Your task to perform on an android device: open app "TextNow: Call + Text Unlimited" (install if not already installed) Image 0: 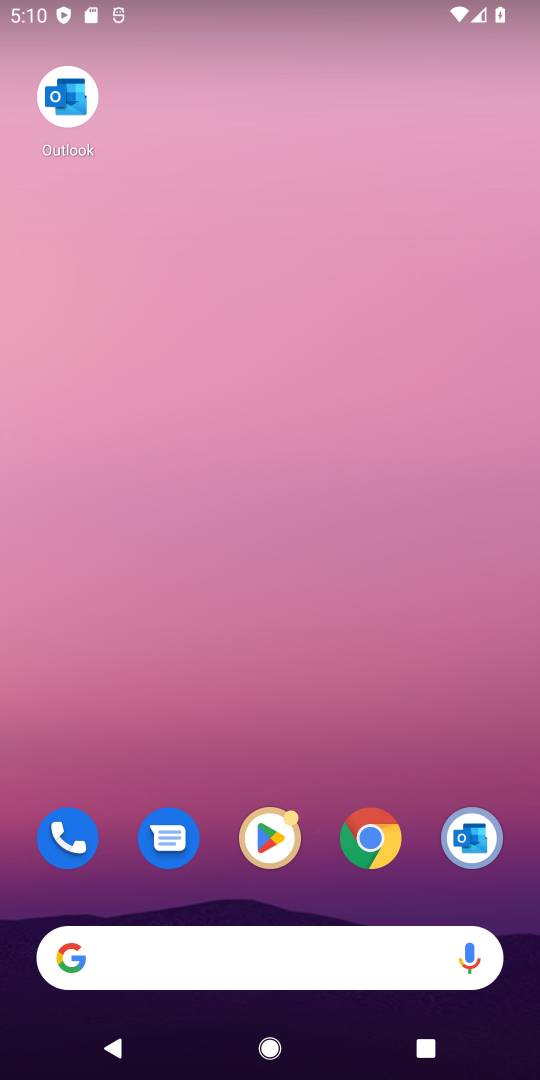
Step 0: click (265, 846)
Your task to perform on an android device: open app "TextNow: Call + Text Unlimited" (install if not already installed) Image 1: 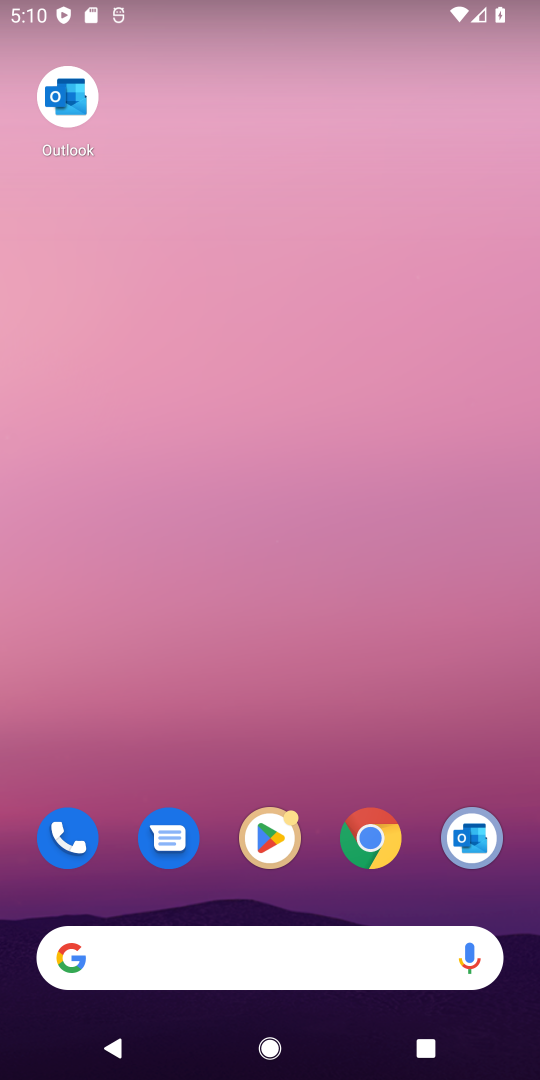
Step 1: click (264, 835)
Your task to perform on an android device: open app "TextNow: Call + Text Unlimited" (install if not already installed) Image 2: 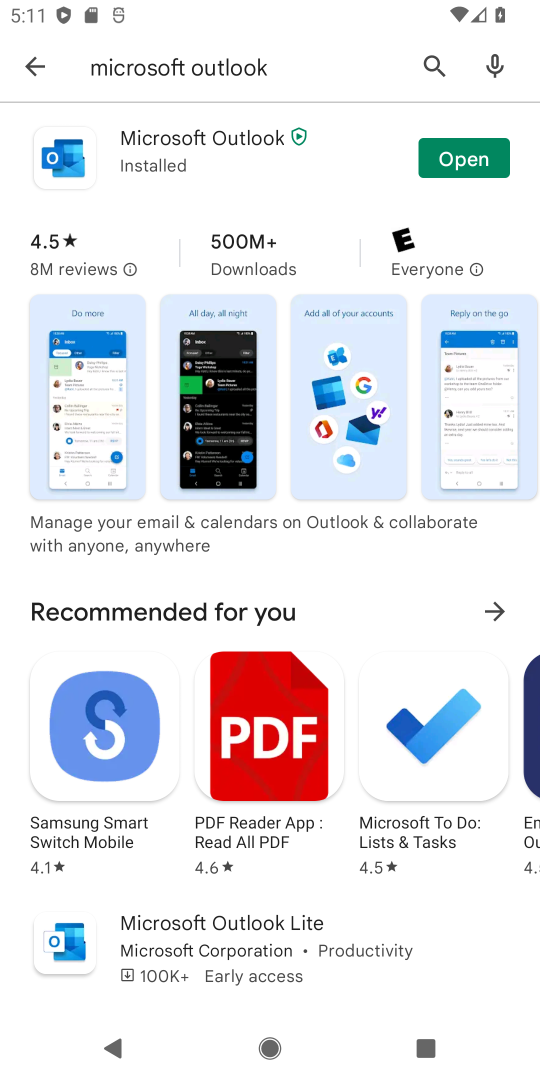
Step 2: click (431, 61)
Your task to perform on an android device: open app "TextNow: Call + Text Unlimited" (install if not already installed) Image 3: 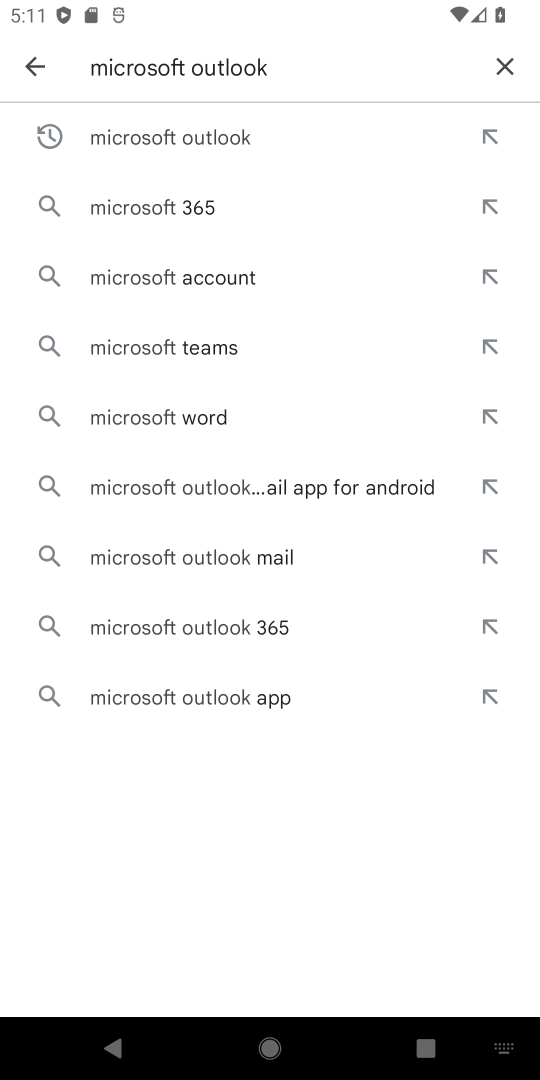
Step 3: click (500, 64)
Your task to perform on an android device: open app "TextNow: Call + Text Unlimited" (install if not already installed) Image 4: 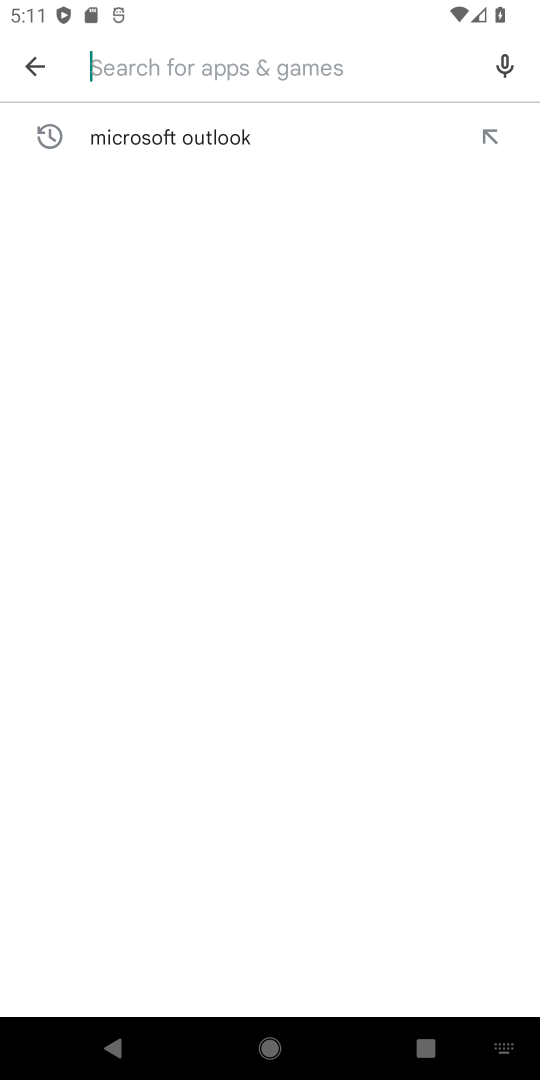
Step 4: type "TextNow: Call + Text Unlimited"
Your task to perform on an android device: open app "TextNow: Call + Text Unlimited" (install if not already installed) Image 5: 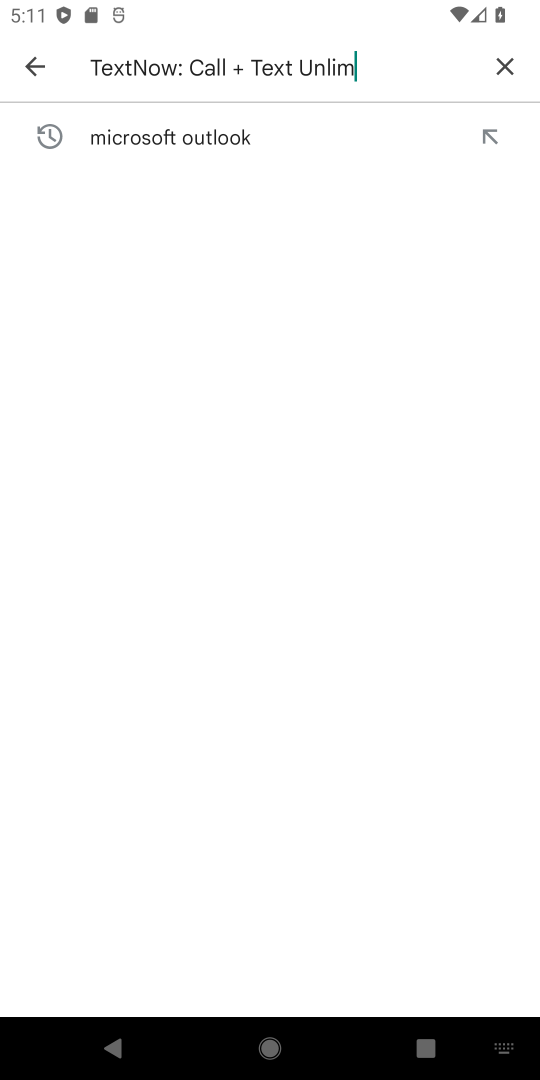
Step 5: type ""
Your task to perform on an android device: open app "TextNow: Call + Text Unlimited" (install if not already installed) Image 6: 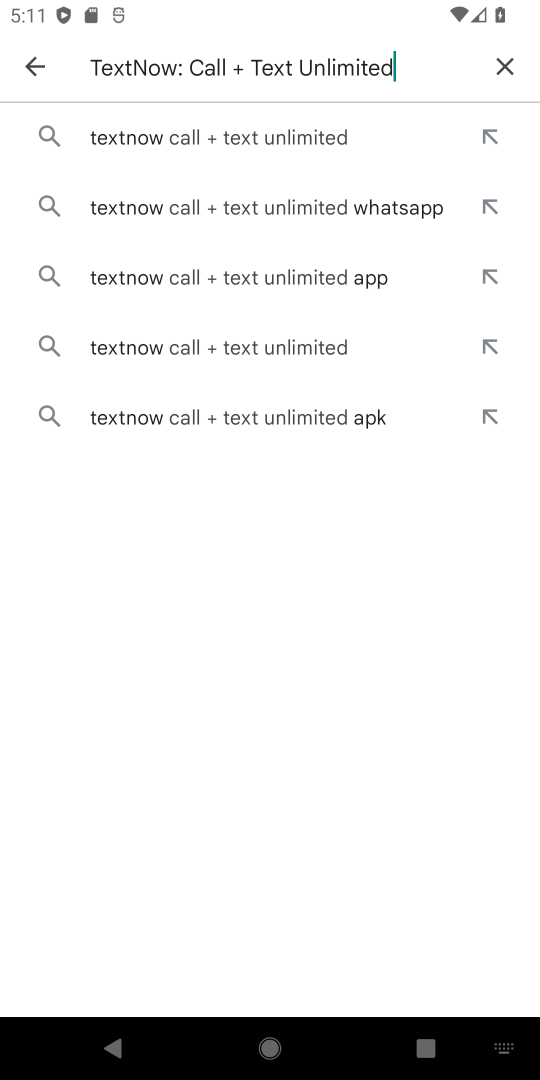
Step 6: click (264, 135)
Your task to perform on an android device: open app "TextNow: Call + Text Unlimited" (install if not already installed) Image 7: 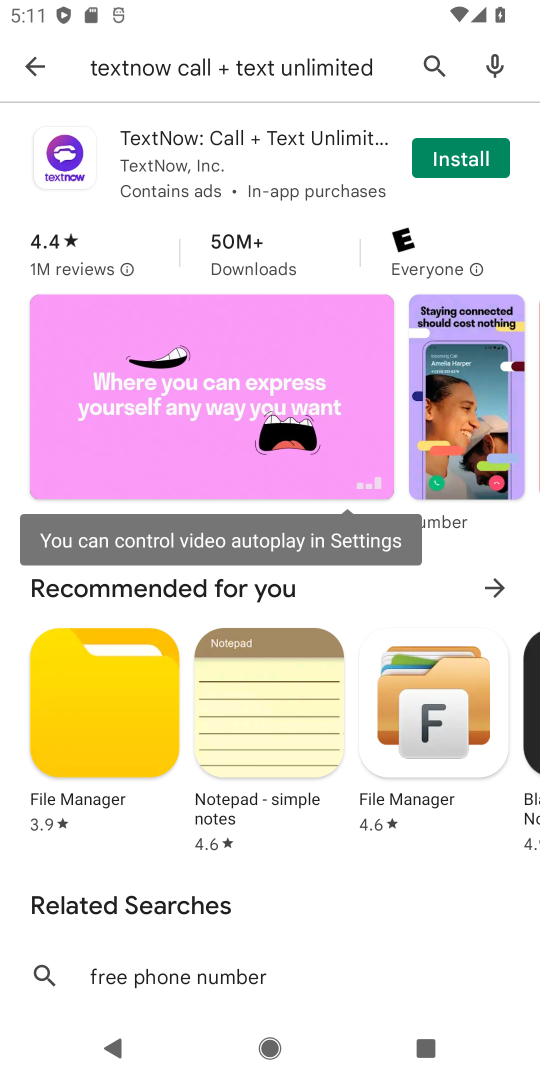
Step 7: click (453, 154)
Your task to perform on an android device: open app "TextNow: Call + Text Unlimited" (install if not already installed) Image 8: 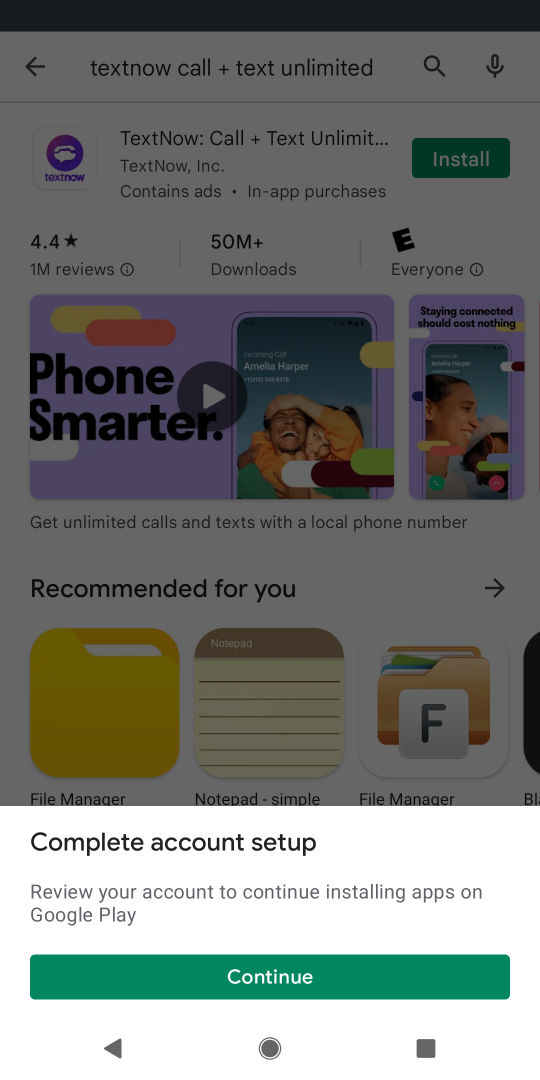
Step 8: click (296, 970)
Your task to perform on an android device: open app "TextNow: Call + Text Unlimited" (install if not already installed) Image 9: 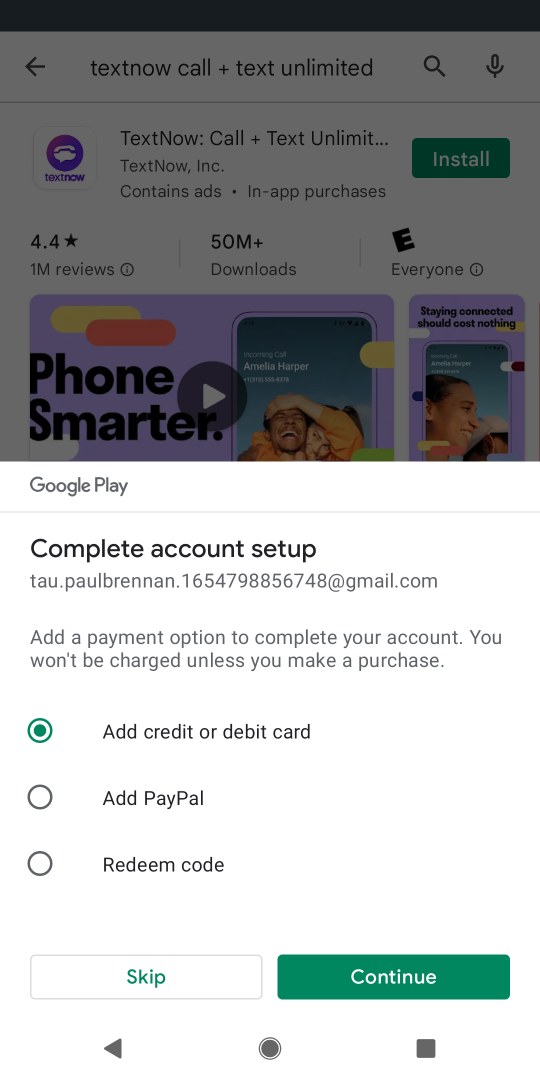
Step 9: click (136, 973)
Your task to perform on an android device: open app "TextNow: Call + Text Unlimited" (install if not already installed) Image 10: 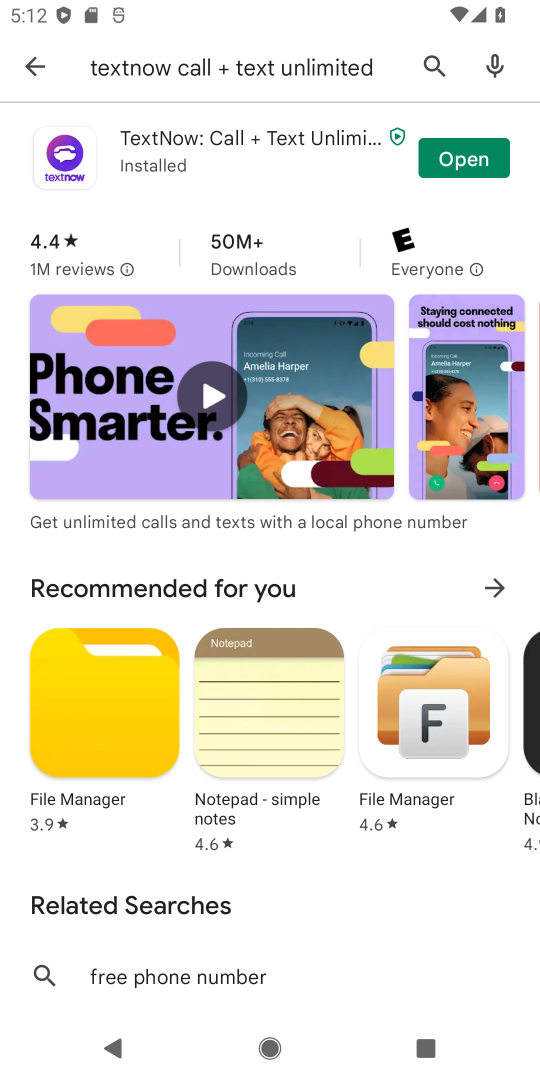
Step 10: click (463, 165)
Your task to perform on an android device: open app "TextNow: Call + Text Unlimited" (install if not already installed) Image 11: 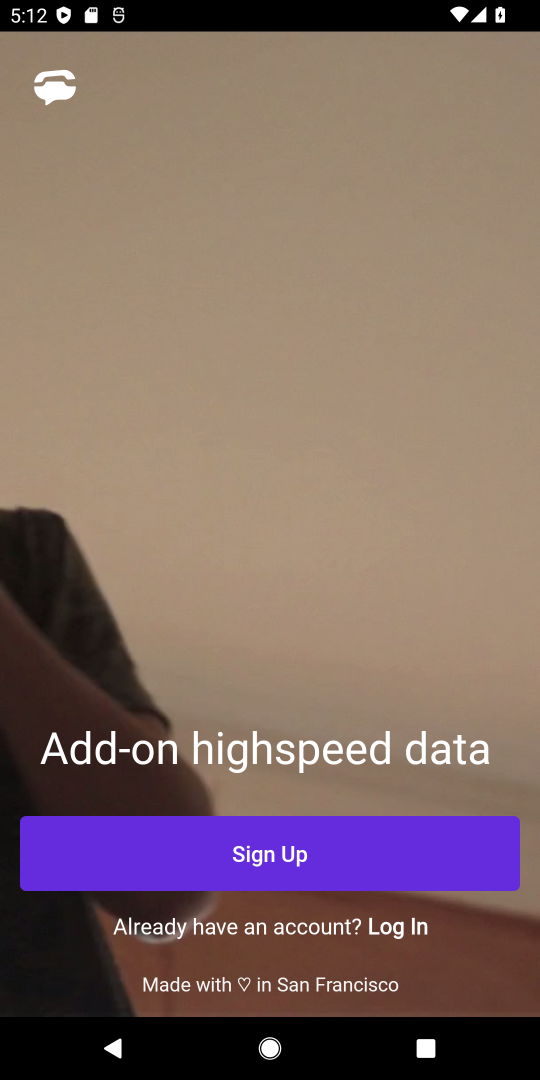
Step 11: task complete